Your task to perform on an android device: see tabs open on other devices in the chrome app Image 0: 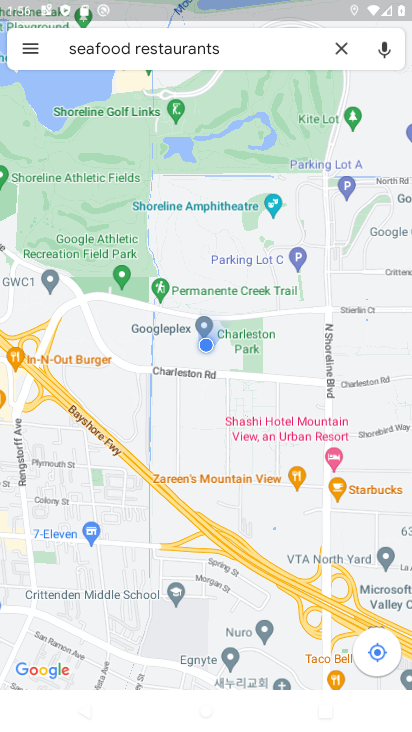
Step 0: press home button
Your task to perform on an android device: see tabs open on other devices in the chrome app Image 1: 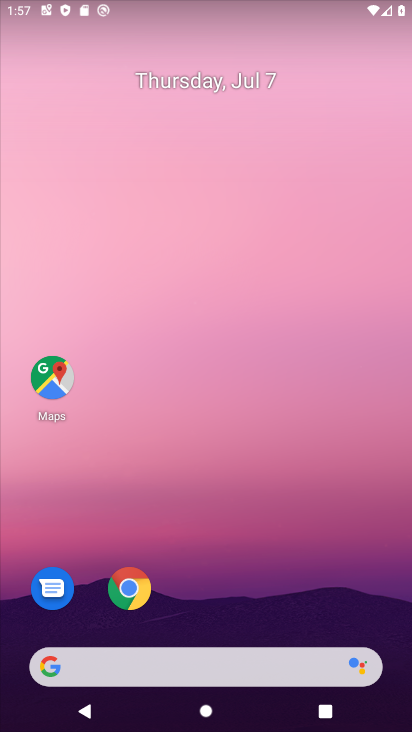
Step 1: click (114, 585)
Your task to perform on an android device: see tabs open on other devices in the chrome app Image 2: 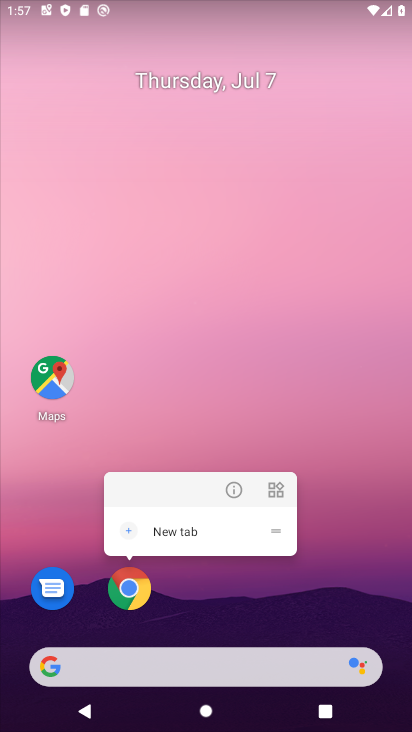
Step 2: click (140, 584)
Your task to perform on an android device: see tabs open on other devices in the chrome app Image 3: 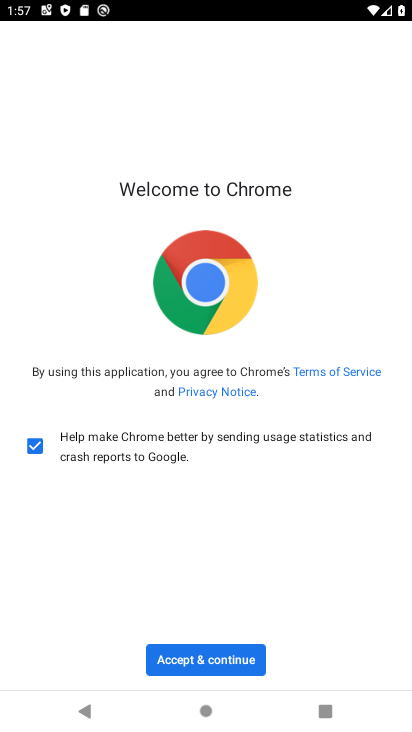
Step 3: click (202, 656)
Your task to perform on an android device: see tabs open on other devices in the chrome app Image 4: 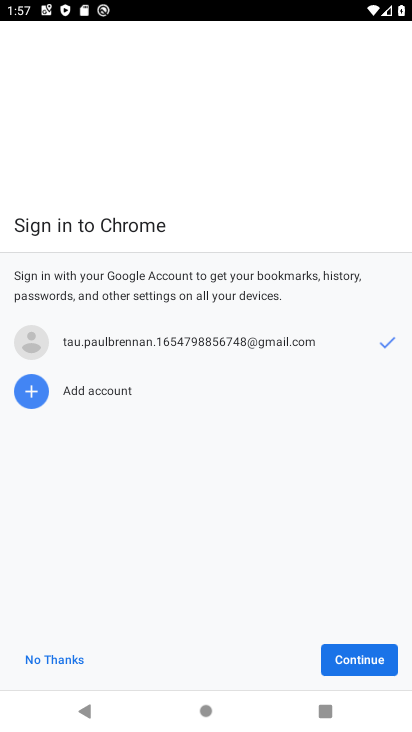
Step 4: click (348, 656)
Your task to perform on an android device: see tabs open on other devices in the chrome app Image 5: 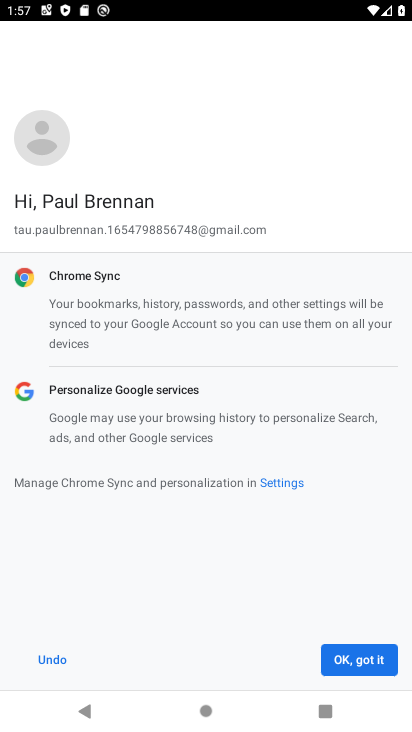
Step 5: click (343, 651)
Your task to perform on an android device: see tabs open on other devices in the chrome app Image 6: 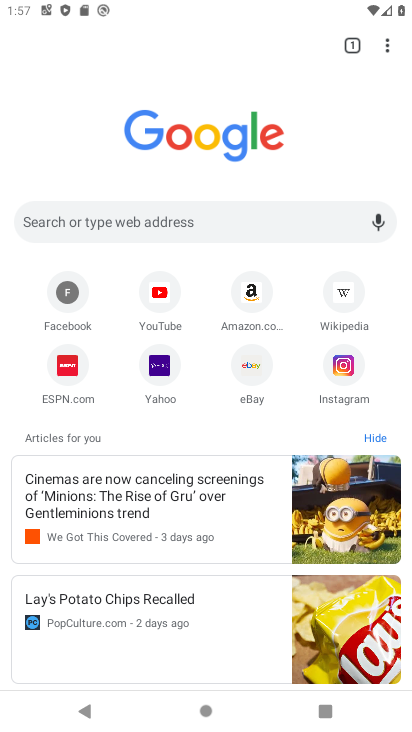
Step 6: click (345, 41)
Your task to perform on an android device: see tabs open on other devices in the chrome app Image 7: 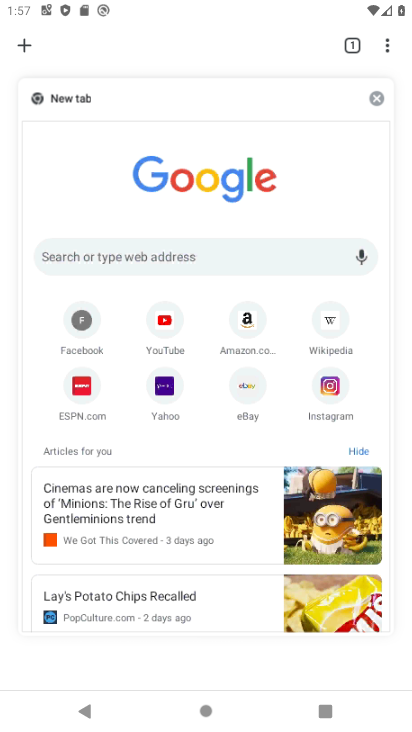
Step 7: task complete